Your task to perform on an android device: Open Wikipedia Image 0: 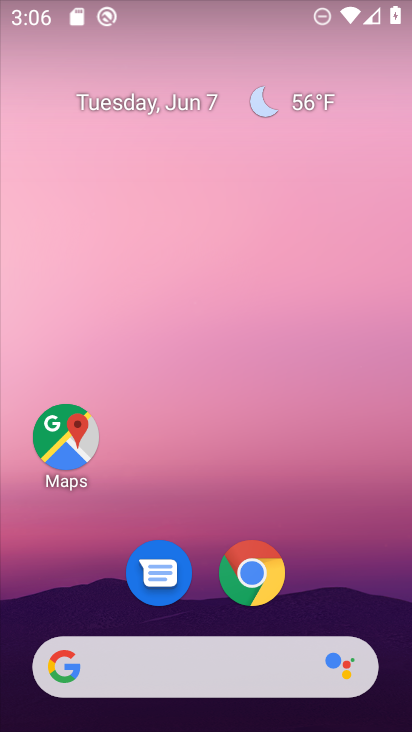
Step 0: click (239, 579)
Your task to perform on an android device: Open Wikipedia Image 1: 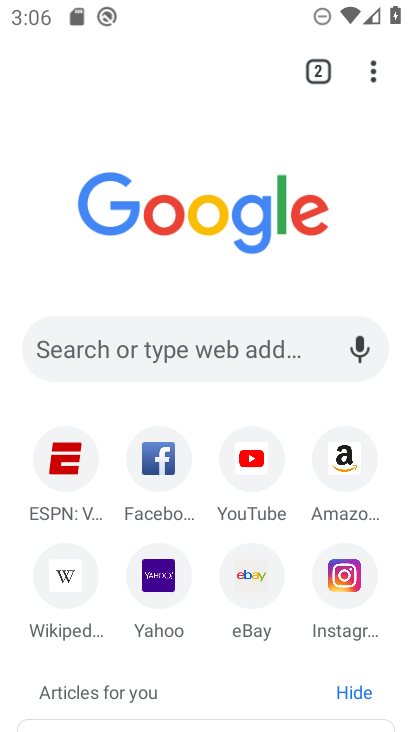
Step 1: click (55, 576)
Your task to perform on an android device: Open Wikipedia Image 2: 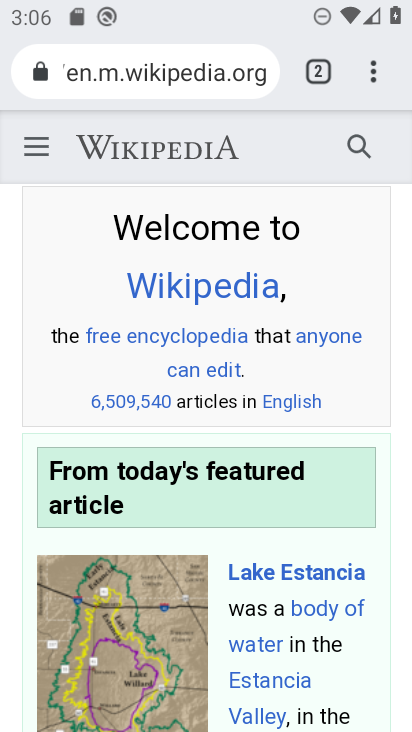
Step 2: task complete